Your task to perform on an android device: turn on wifi Image 0: 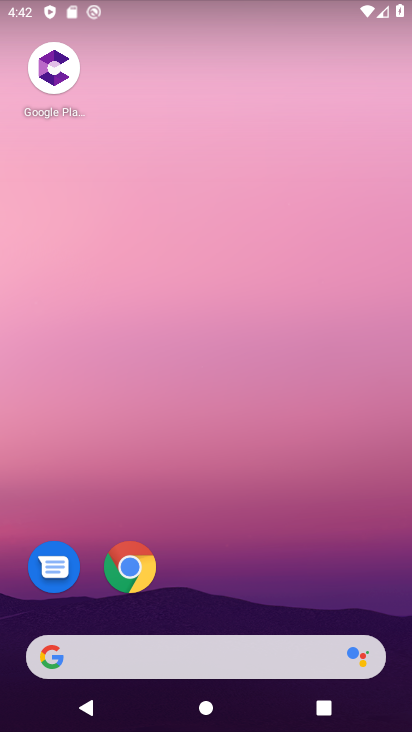
Step 0: drag from (171, 642) to (243, 140)
Your task to perform on an android device: turn on wifi Image 1: 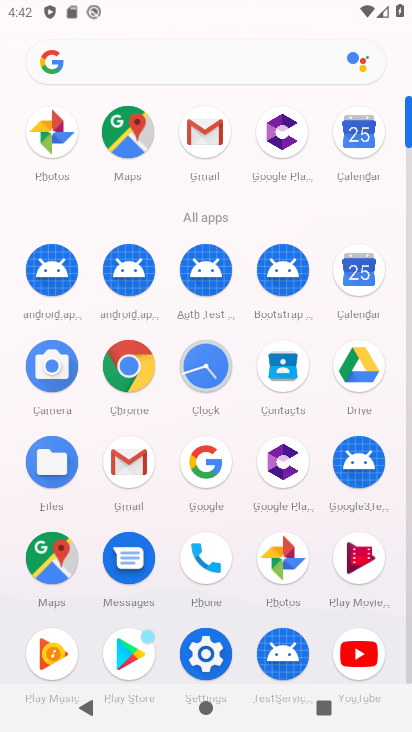
Step 1: click (209, 657)
Your task to perform on an android device: turn on wifi Image 2: 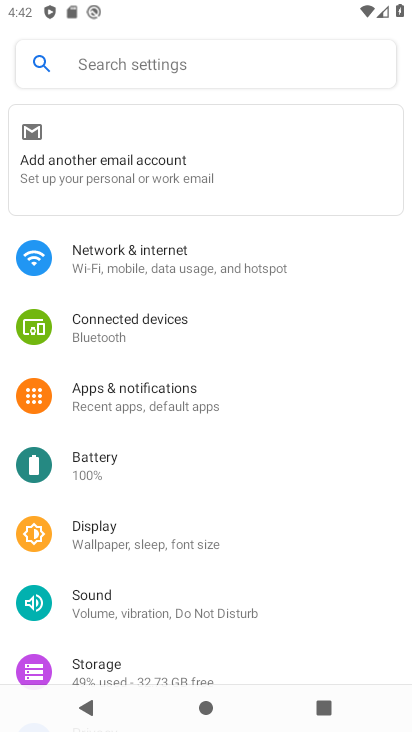
Step 2: click (155, 263)
Your task to perform on an android device: turn on wifi Image 3: 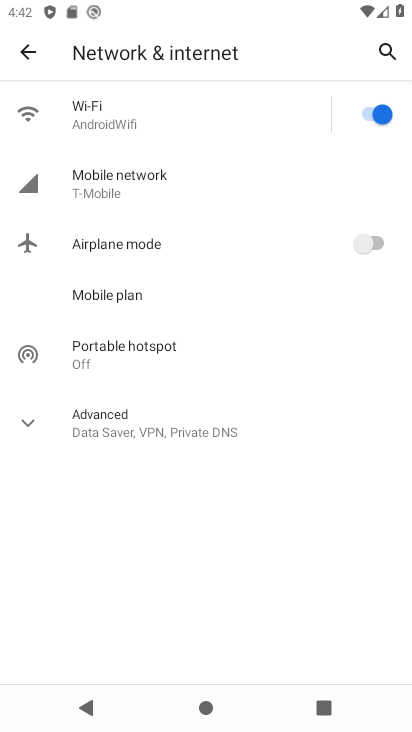
Step 3: task complete